Your task to perform on an android device: Open notification settings Image 0: 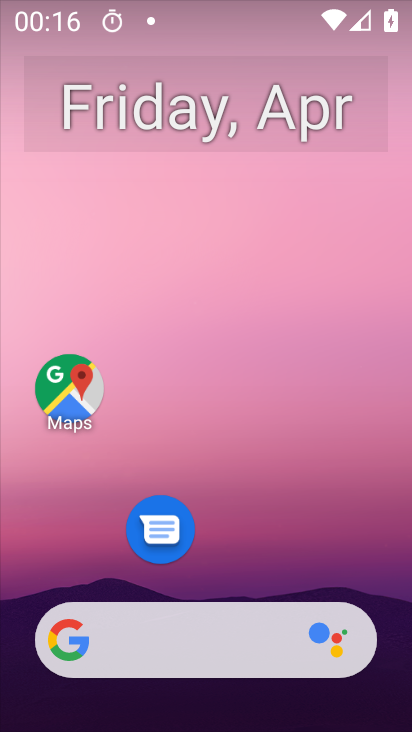
Step 0: drag from (256, 322) to (307, 162)
Your task to perform on an android device: Open notification settings Image 1: 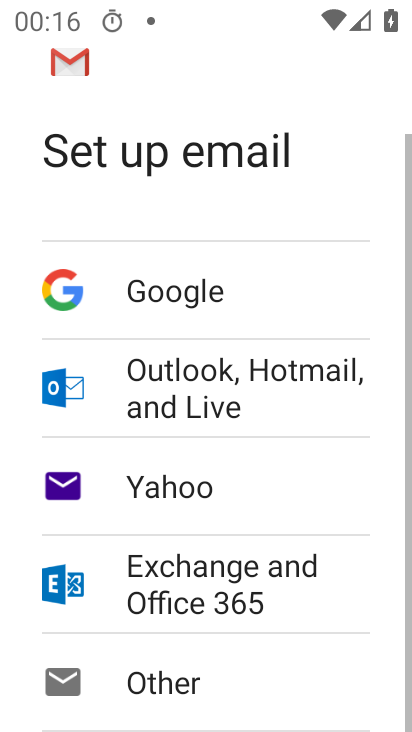
Step 1: press home button
Your task to perform on an android device: Open notification settings Image 2: 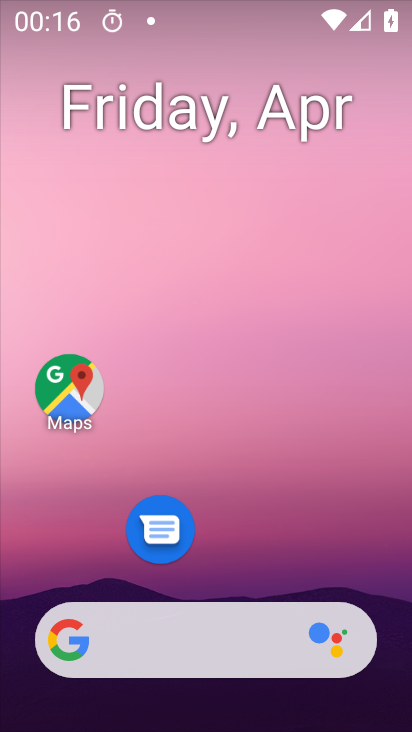
Step 2: drag from (250, 525) to (251, 16)
Your task to perform on an android device: Open notification settings Image 3: 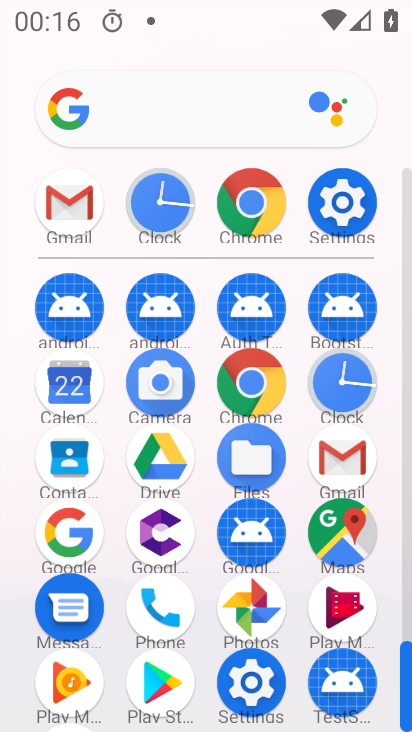
Step 3: click (269, 685)
Your task to perform on an android device: Open notification settings Image 4: 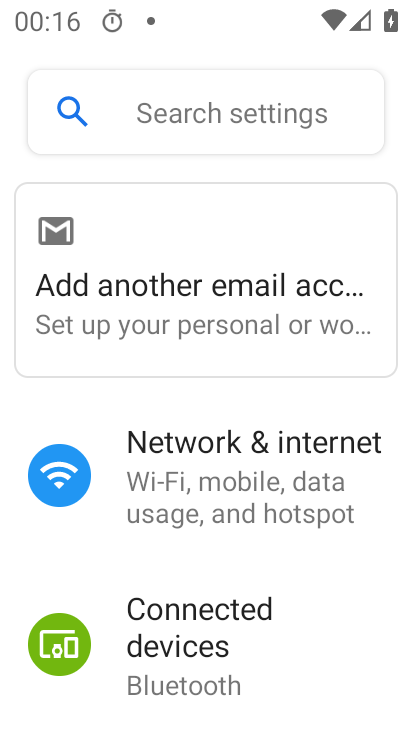
Step 4: drag from (208, 537) to (298, 178)
Your task to perform on an android device: Open notification settings Image 5: 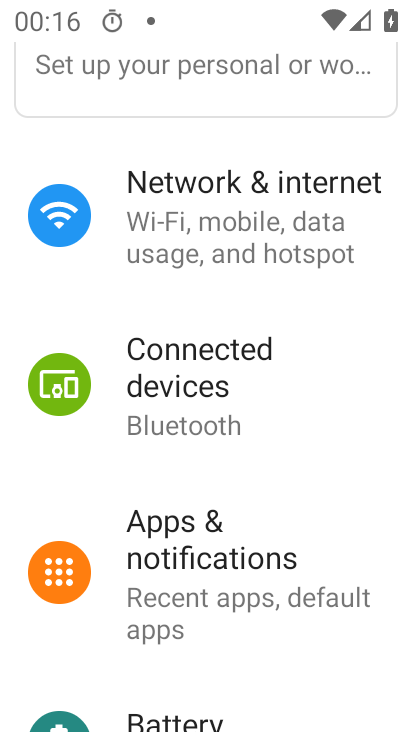
Step 5: click (166, 533)
Your task to perform on an android device: Open notification settings Image 6: 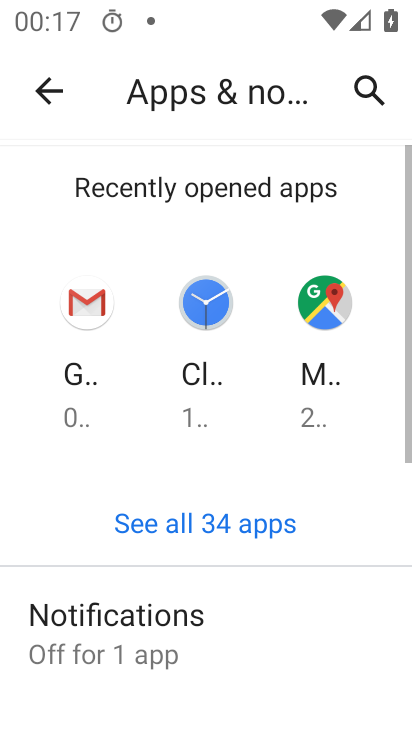
Step 6: click (111, 645)
Your task to perform on an android device: Open notification settings Image 7: 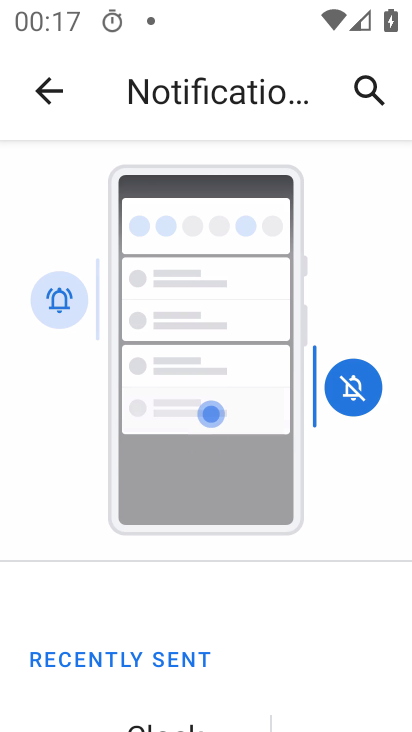
Step 7: task complete